Your task to perform on an android device: What's the weather? Image 0: 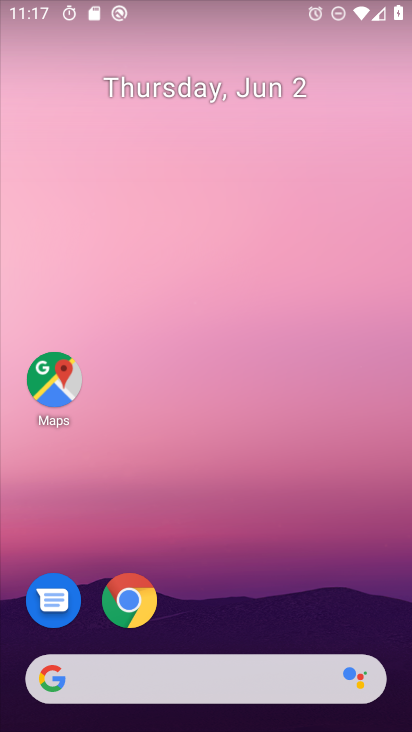
Step 0: drag from (224, 618) to (180, 89)
Your task to perform on an android device: What's the weather? Image 1: 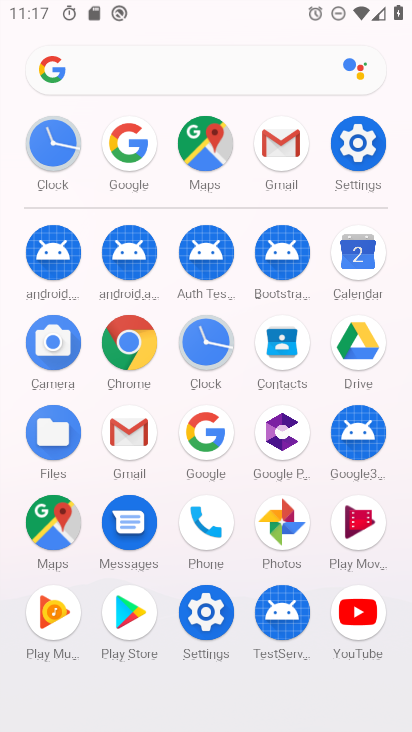
Step 1: click (141, 147)
Your task to perform on an android device: What's the weather? Image 2: 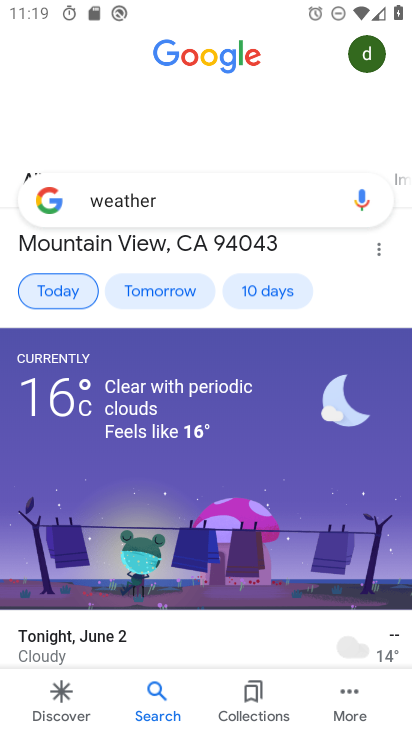
Step 2: task complete